Your task to perform on an android device: Open ESPN.com Image 0: 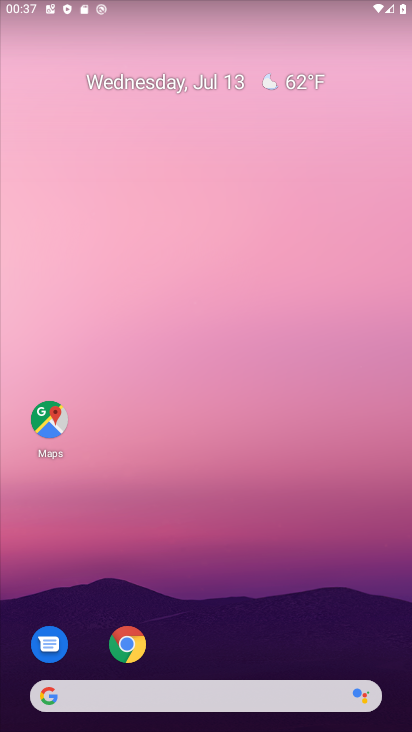
Step 0: click (138, 645)
Your task to perform on an android device: Open ESPN.com Image 1: 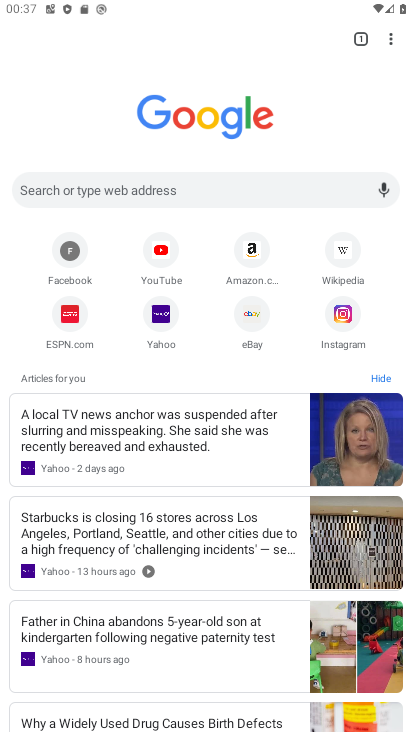
Step 1: click (62, 317)
Your task to perform on an android device: Open ESPN.com Image 2: 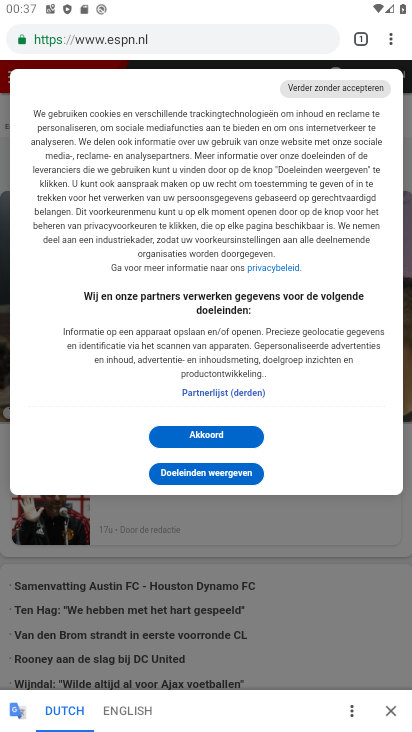
Step 2: click (214, 429)
Your task to perform on an android device: Open ESPN.com Image 3: 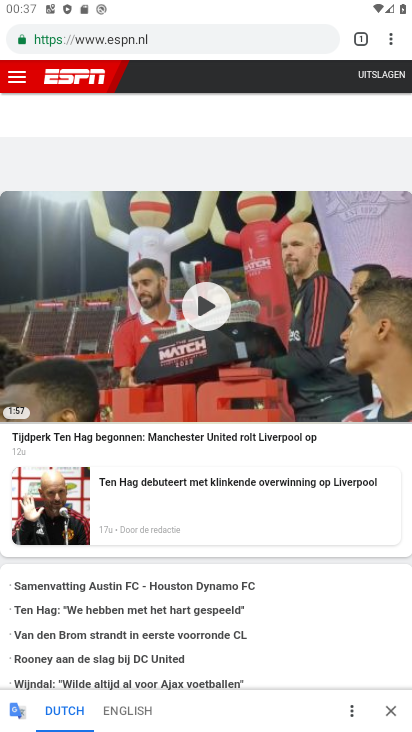
Step 3: task complete